Your task to perform on an android device: check android version Image 0: 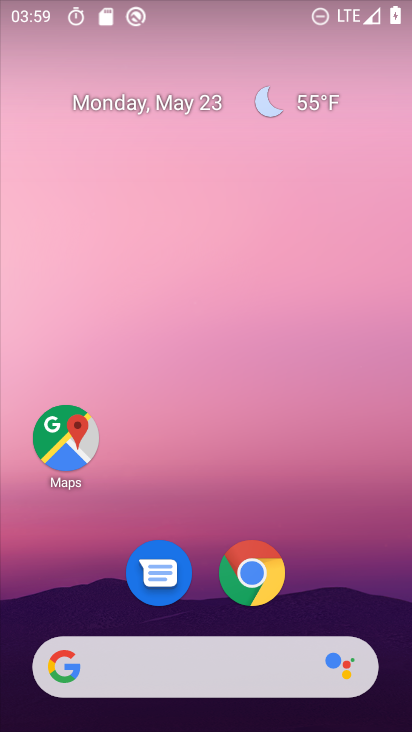
Step 0: drag from (332, 590) to (294, 64)
Your task to perform on an android device: check android version Image 1: 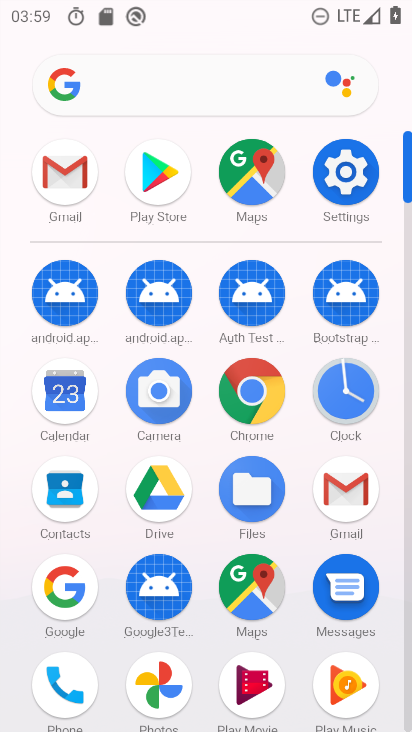
Step 1: click (354, 169)
Your task to perform on an android device: check android version Image 2: 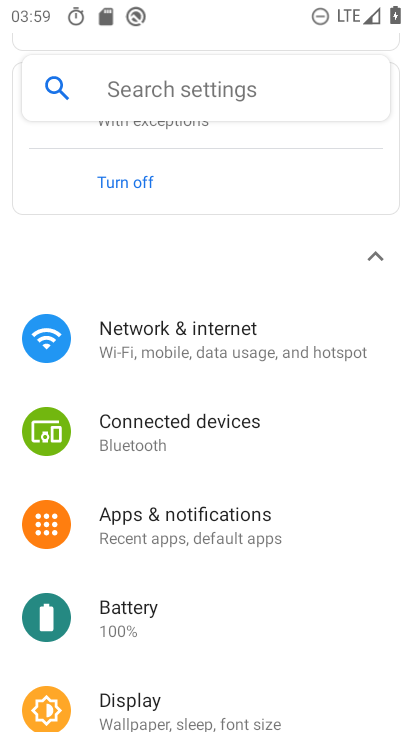
Step 2: drag from (221, 607) to (213, 179)
Your task to perform on an android device: check android version Image 3: 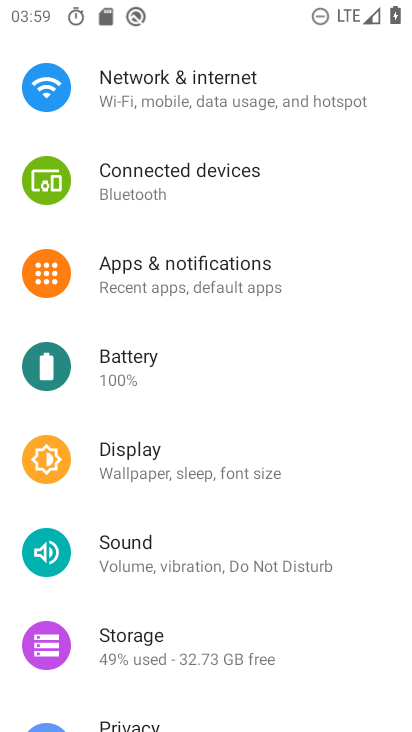
Step 3: drag from (221, 676) to (241, 87)
Your task to perform on an android device: check android version Image 4: 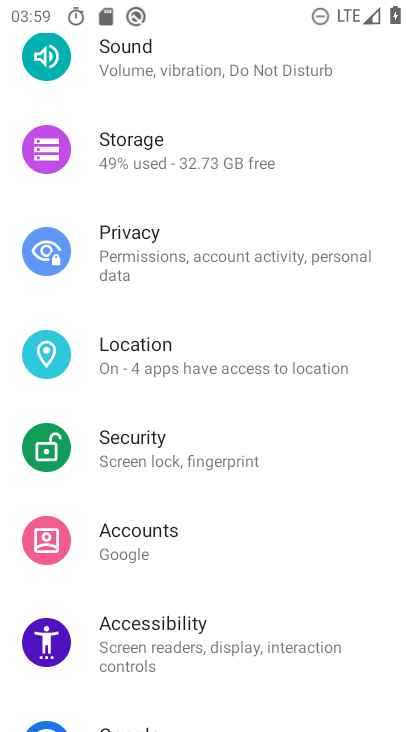
Step 4: drag from (236, 648) to (248, 204)
Your task to perform on an android device: check android version Image 5: 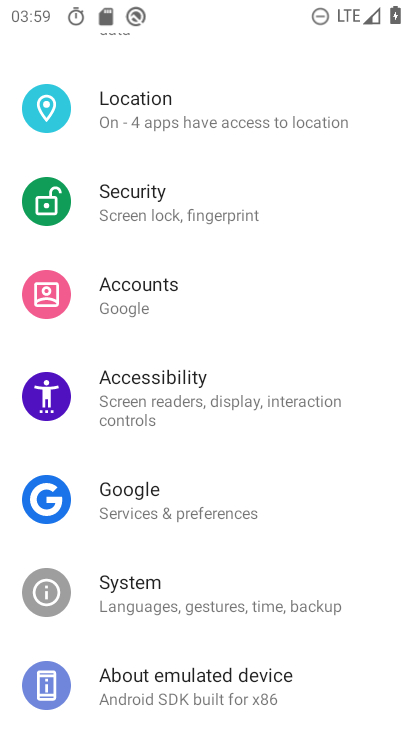
Step 5: click (220, 688)
Your task to perform on an android device: check android version Image 6: 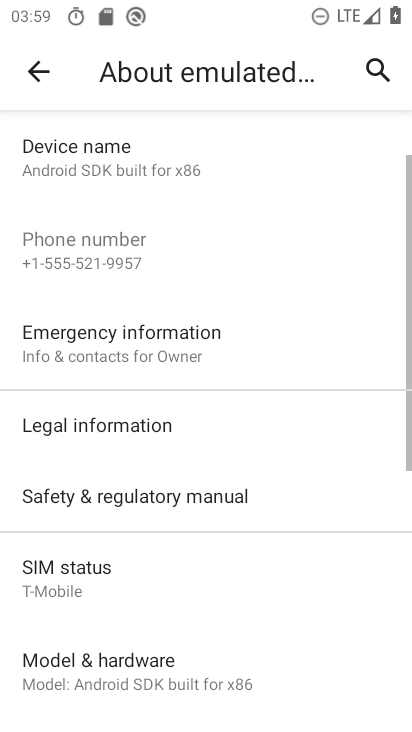
Step 6: drag from (267, 596) to (284, 332)
Your task to perform on an android device: check android version Image 7: 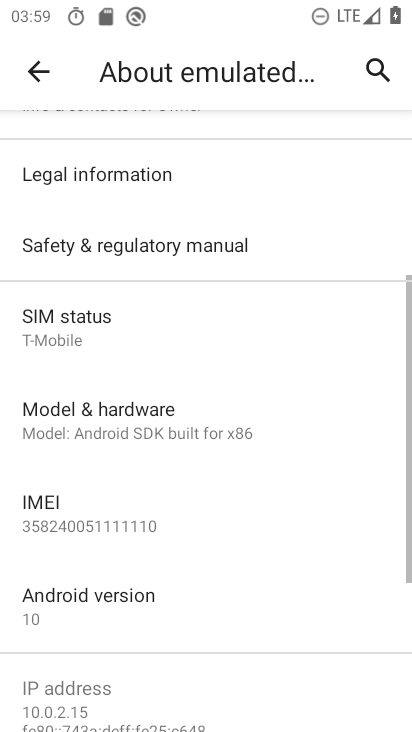
Step 7: click (109, 612)
Your task to perform on an android device: check android version Image 8: 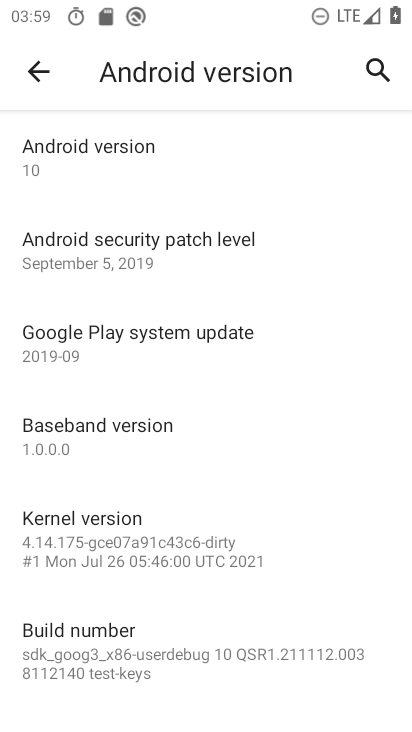
Step 8: task complete